Your task to perform on an android device: Add "asus zenbook" to the cart on costco.com, then select checkout. Image 0: 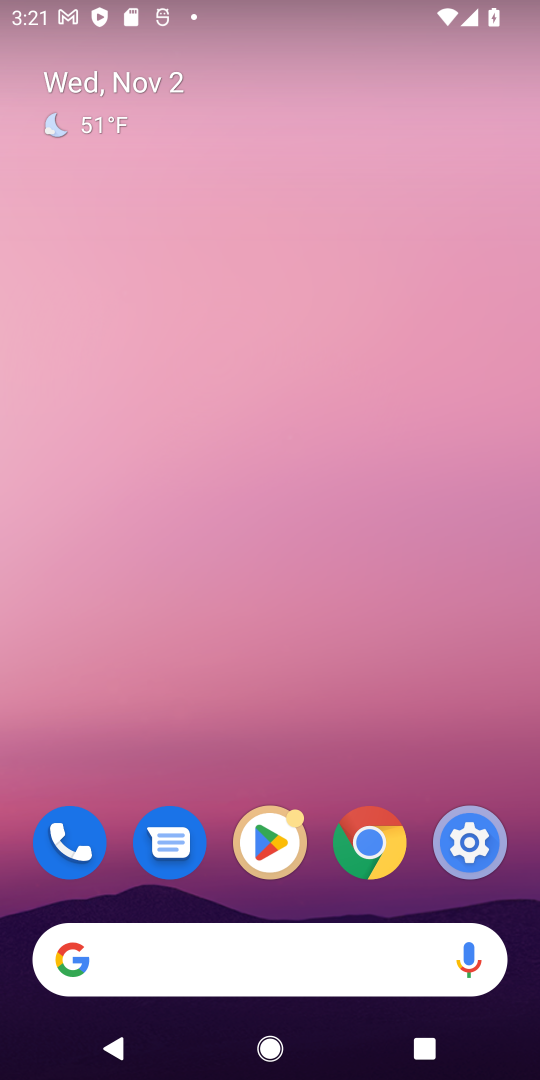
Step 0: click (291, 962)
Your task to perform on an android device: Add "asus zenbook" to the cart on costco.com, then select checkout. Image 1: 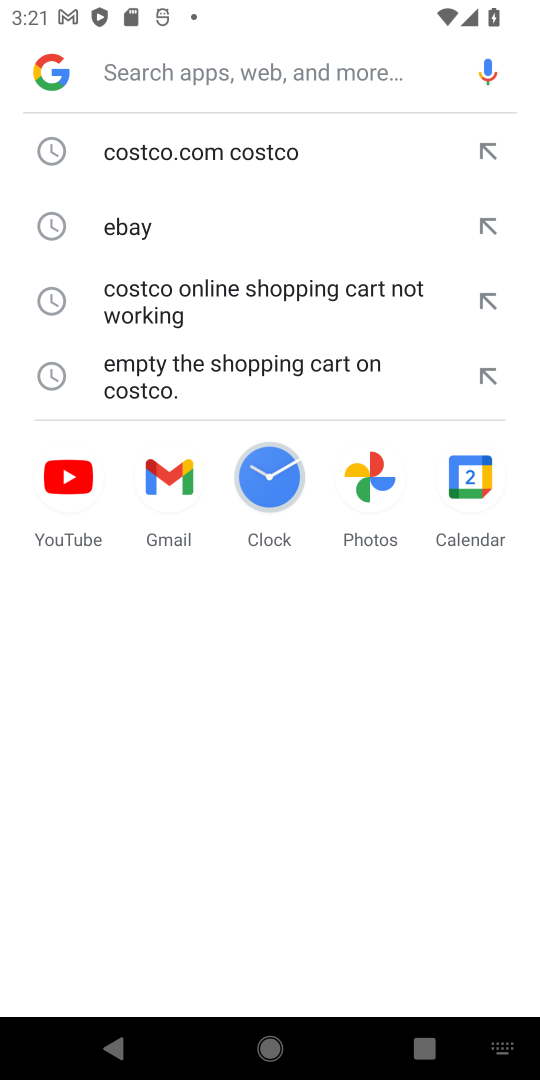
Step 1: click (208, 142)
Your task to perform on an android device: Add "asus zenbook" to the cart on costco.com, then select checkout. Image 2: 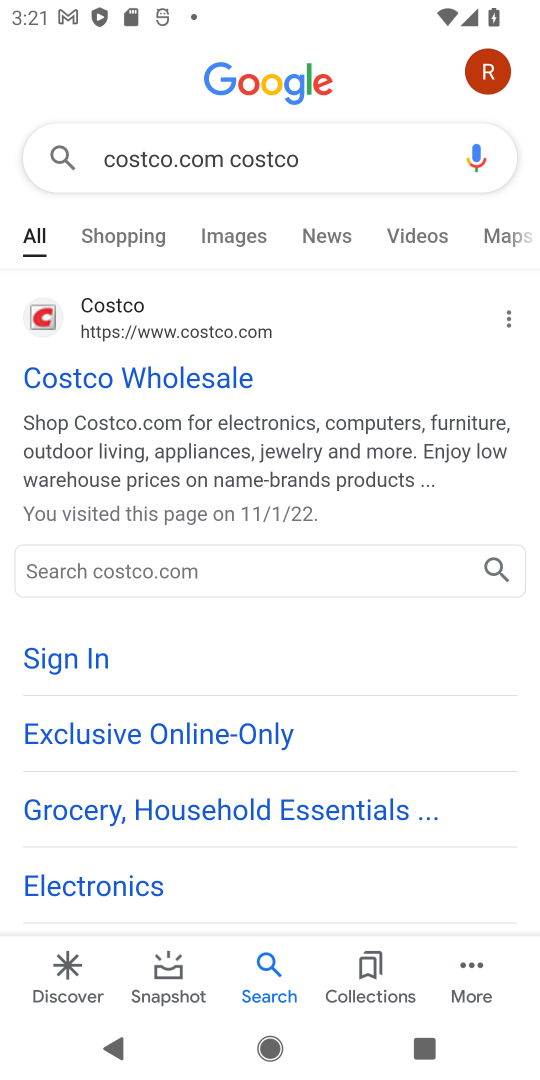
Step 2: click (61, 371)
Your task to perform on an android device: Add "asus zenbook" to the cart on costco.com, then select checkout. Image 3: 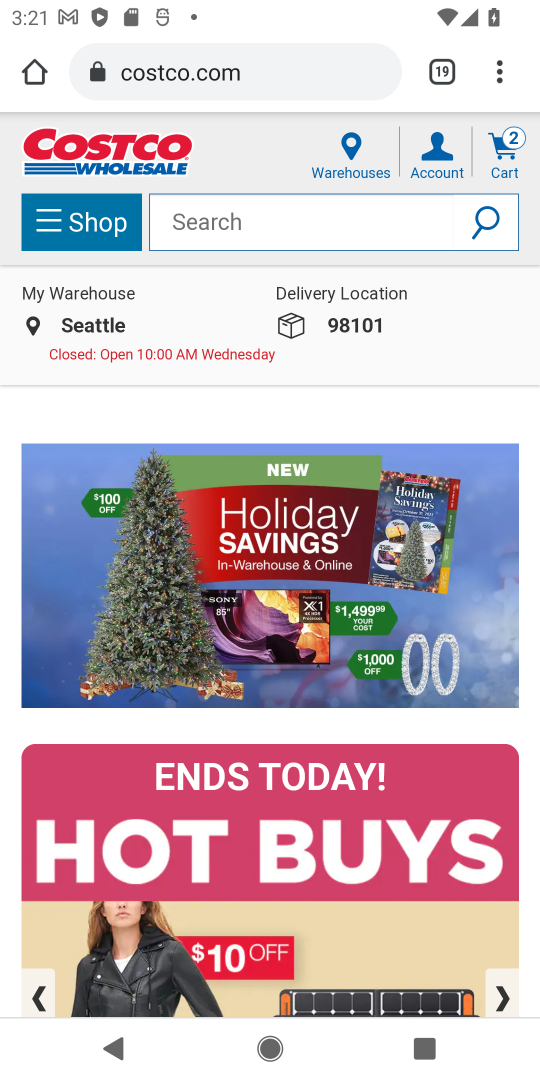
Step 3: click (301, 221)
Your task to perform on an android device: Add "asus zenbook" to the cart on costco.com, then select checkout. Image 4: 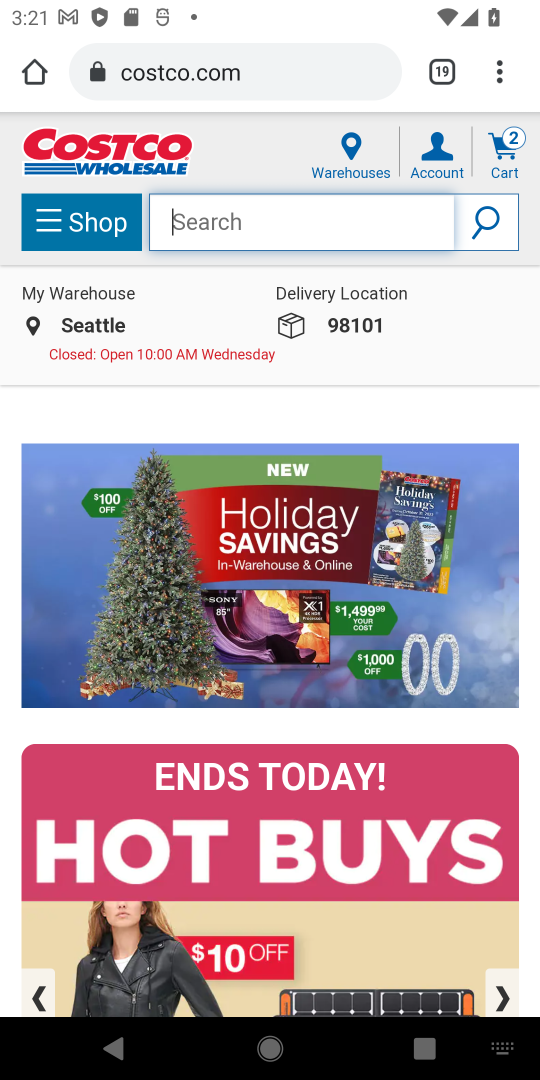
Step 4: type "asus zenbook"
Your task to perform on an android device: Add "asus zenbook" to the cart on costco.com, then select checkout. Image 5: 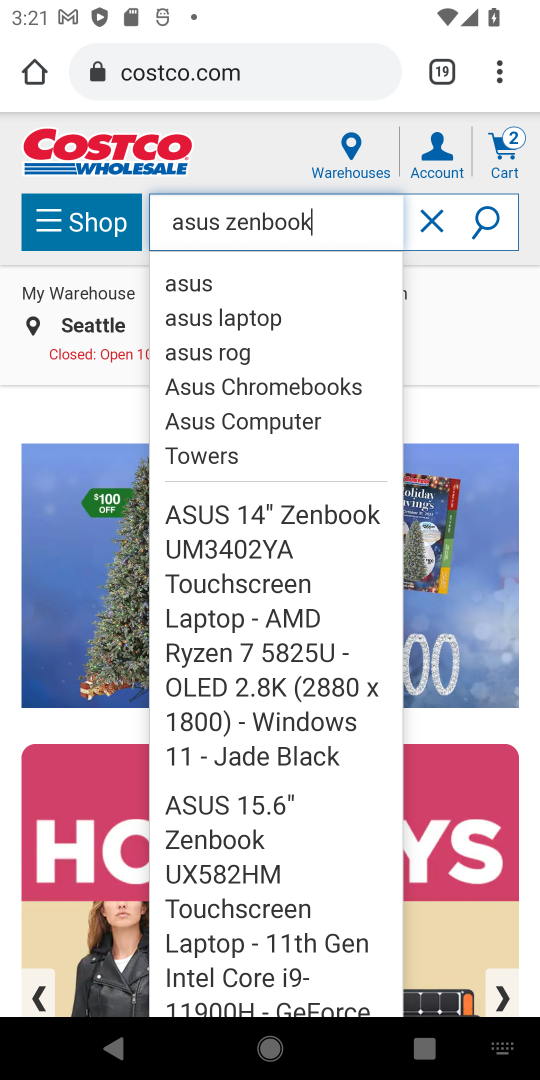
Step 5: click (478, 216)
Your task to perform on an android device: Add "asus zenbook" to the cart on costco.com, then select checkout. Image 6: 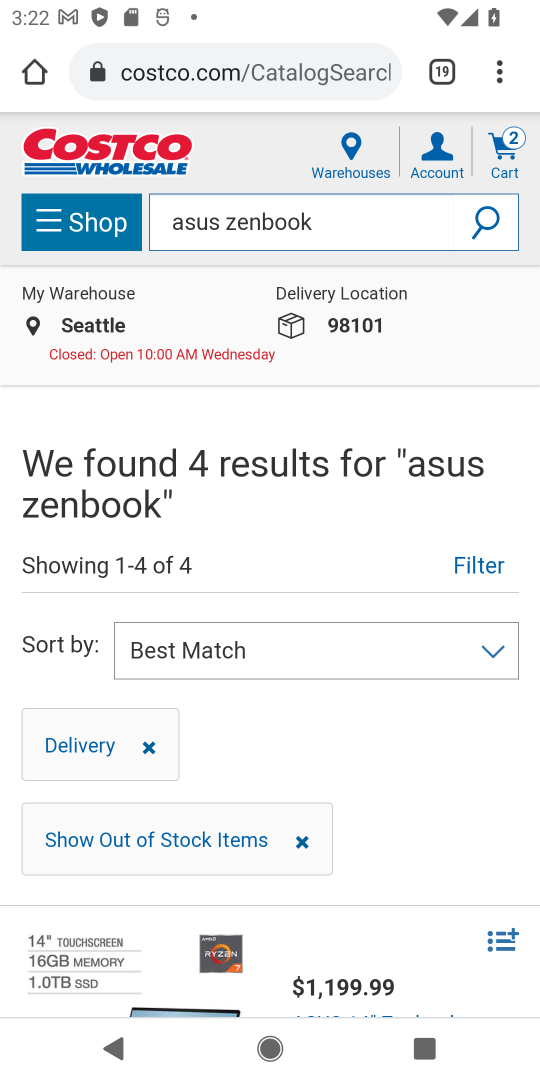
Step 6: drag from (398, 739) to (377, 498)
Your task to perform on an android device: Add "asus zenbook" to the cart on costco.com, then select checkout. Image 7: 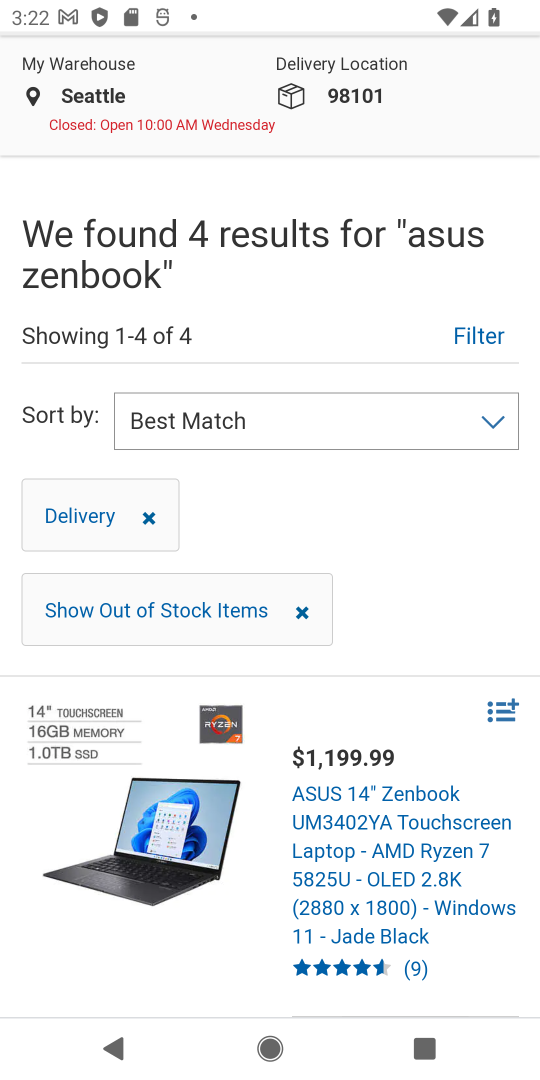
Step 7: drag from (391, 614) to (385, 333)
Your task to perform on an android device: Add "asus zenbook" to the cart on costco.com, then select checkout. Image 8: 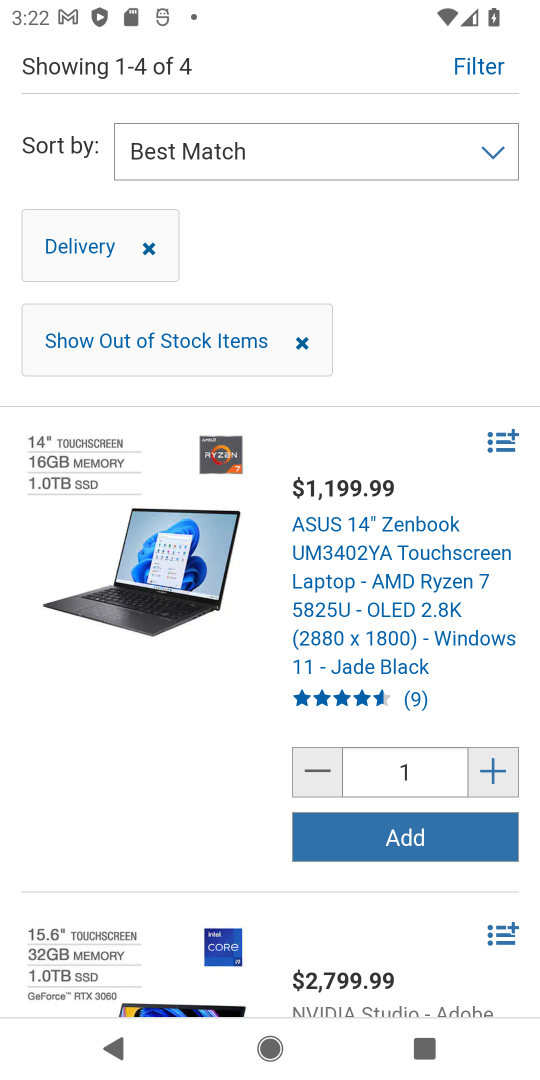
Step 8: click (400, 835)
Your task to perform on an android device: Add "asus zenbook" to the cart on costco.com, then select checkout. Image 9: 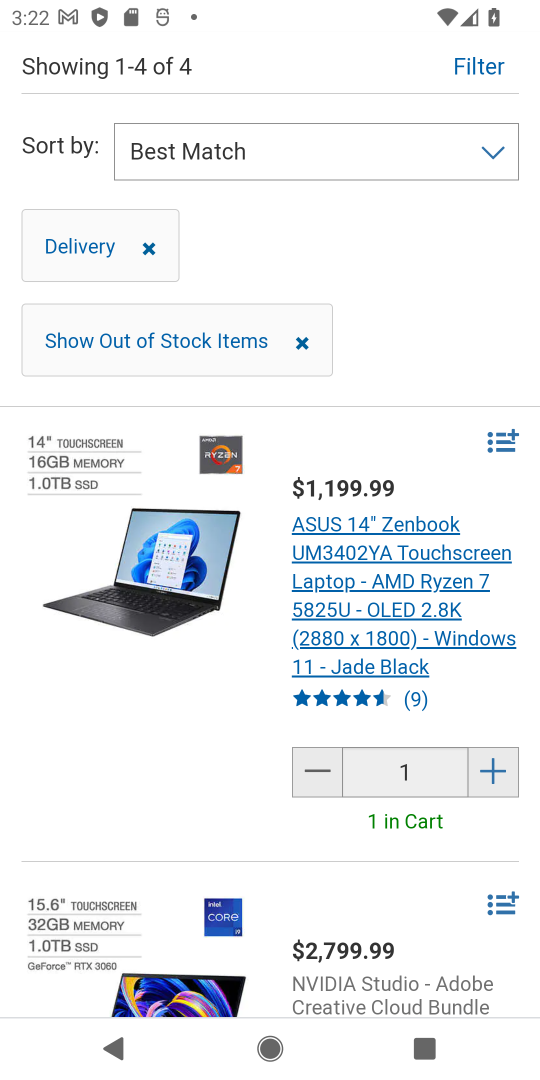
Step 9: drag from (416, 323) to (402, 685)
Your task to perform on an android device: Add "asus zenbook" to the cart on costco.com, then select checkout. Image 10: 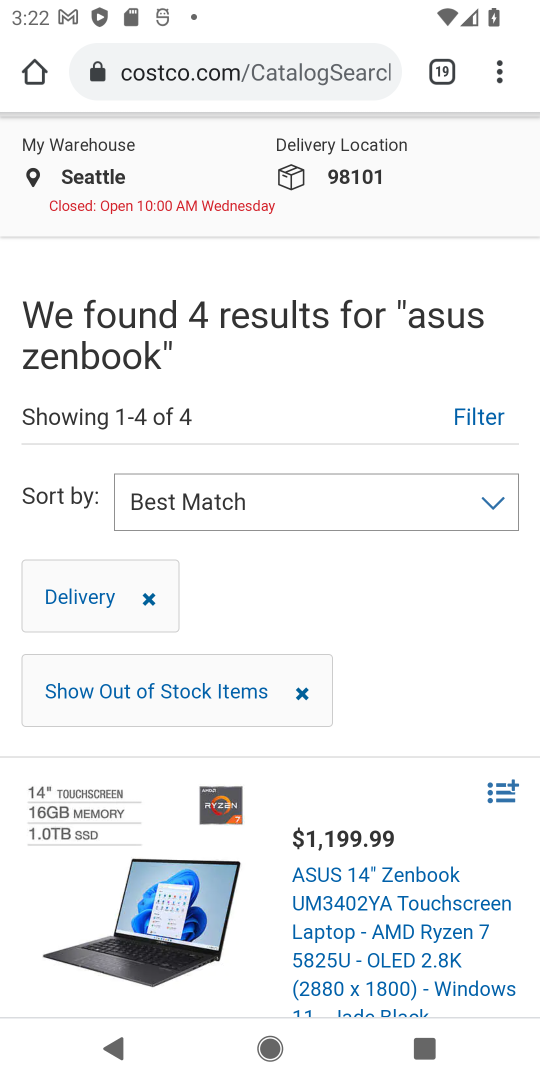
Step 10: drag from (364, 384) to (314, 839)
Your task to perform on an android device: Add "asus zenbook" to the cart on costco.com, then select checkout. Image 11: 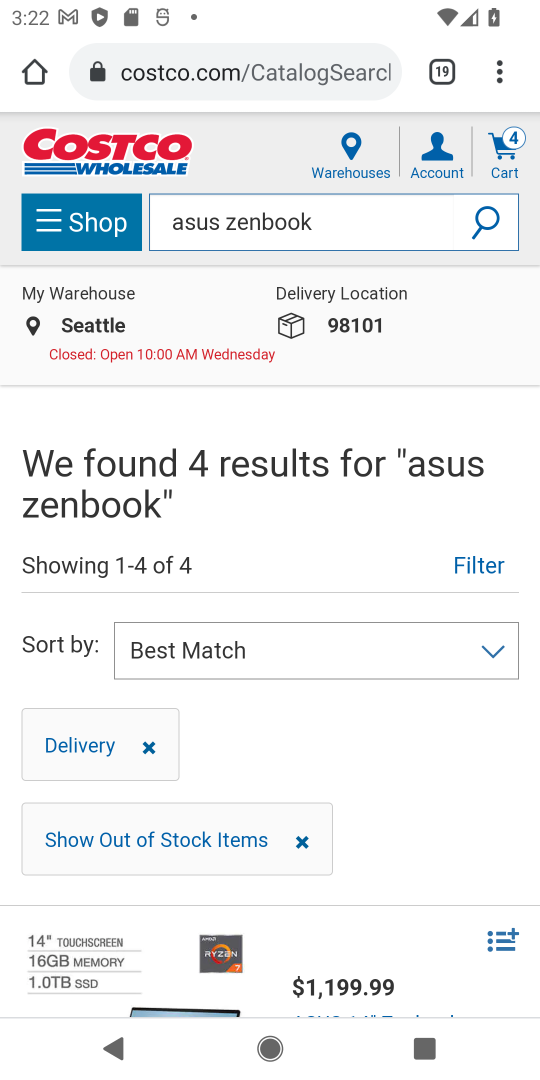
Step 11: click (505, 146)
Your task to perform on an android device: Add "asus zenbook" to the cart on costco.com, then select checkout. Image 12: 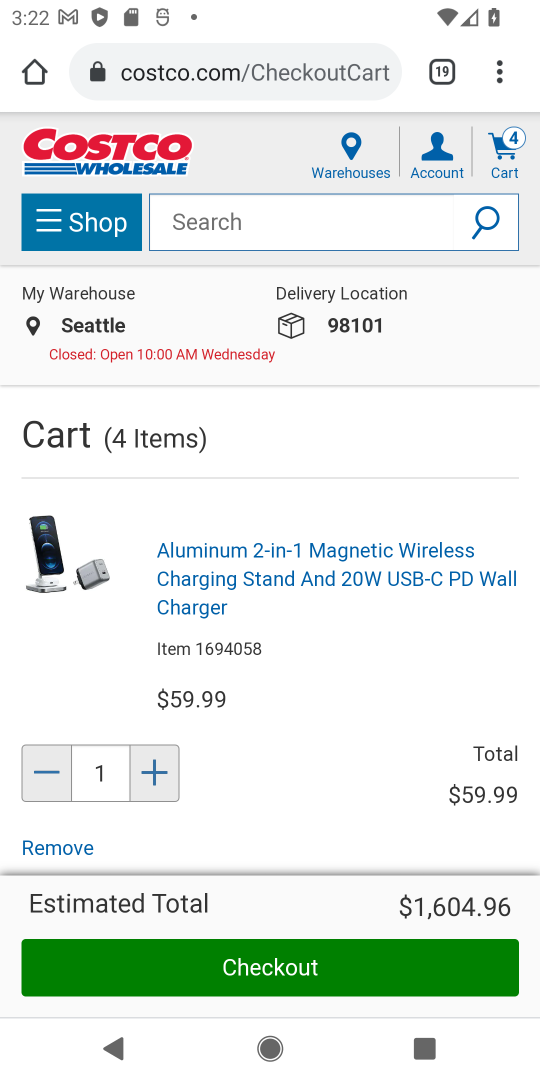
Step 12: click (272, 970)
Your task to perform on an android device: Add "asus zenbook" to the cart on costco.com, then select checkout. Image 13: 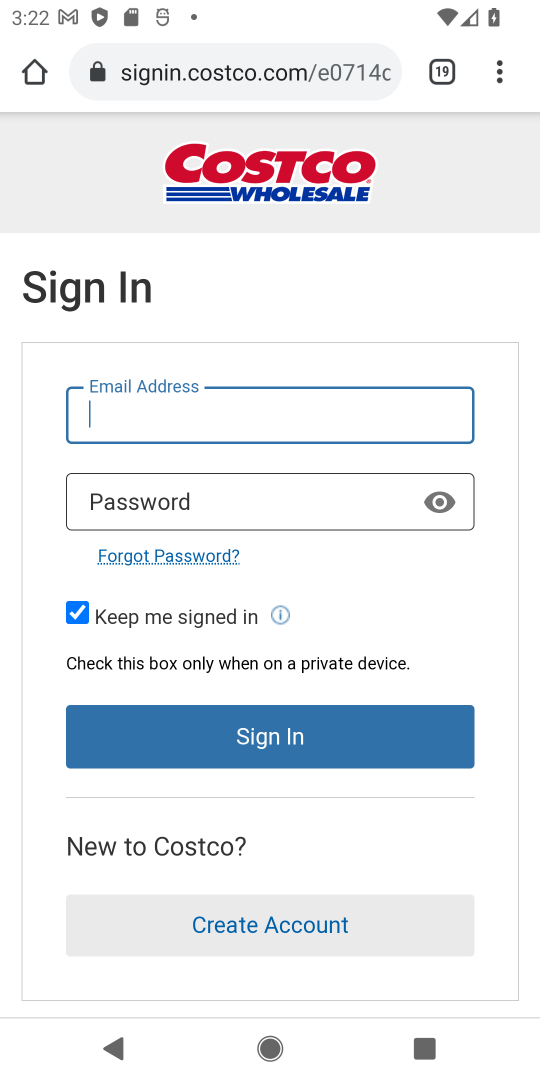
Step 13: task complete